Your task to perform on an android device: see sites visited before in the chrome app Image 0: 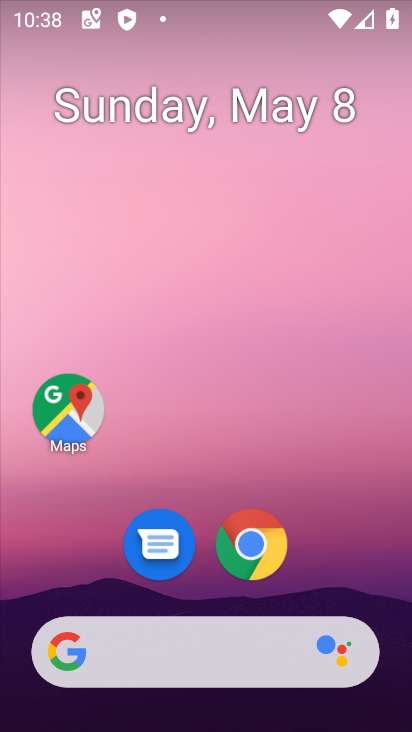
Step 0: click (249, 568)
Your task to perform on an android device: see sites visited before in the chrome app Image 1: 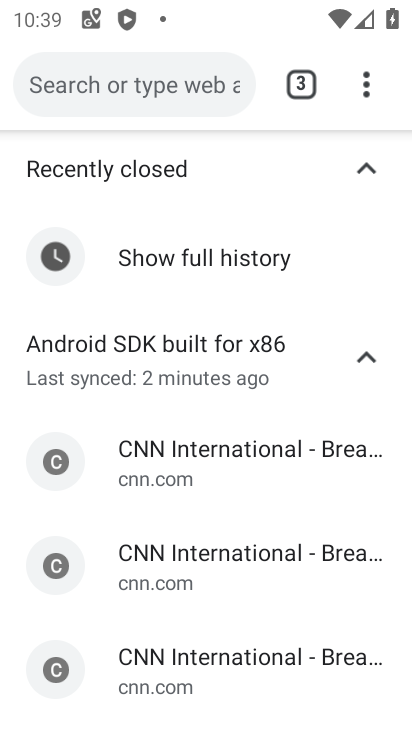
Step 1: task complete